Your task to perform on an android device: Open sound settings Image 0: 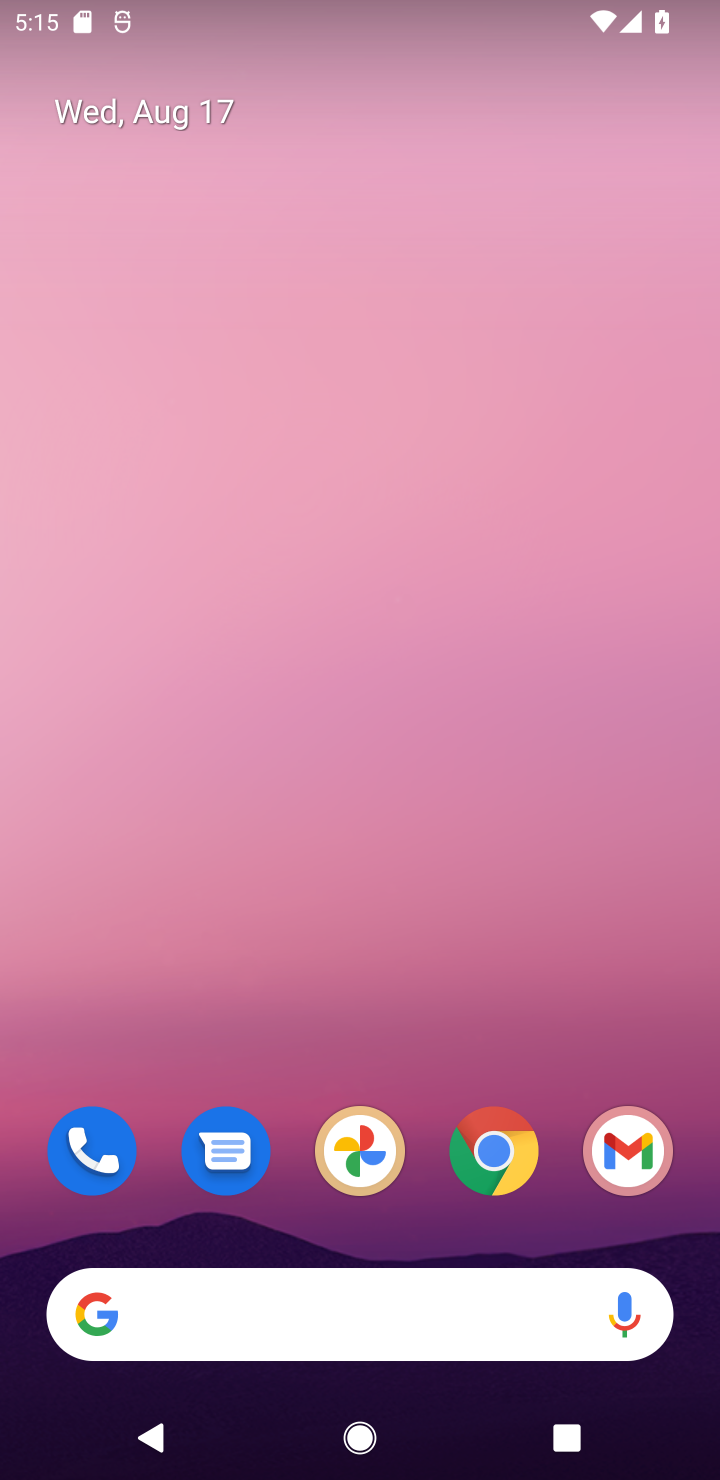
Step 0: drag from (410, 1080) to (428, 16)
Your task to perform on an android device: Open sound settings Image 1: 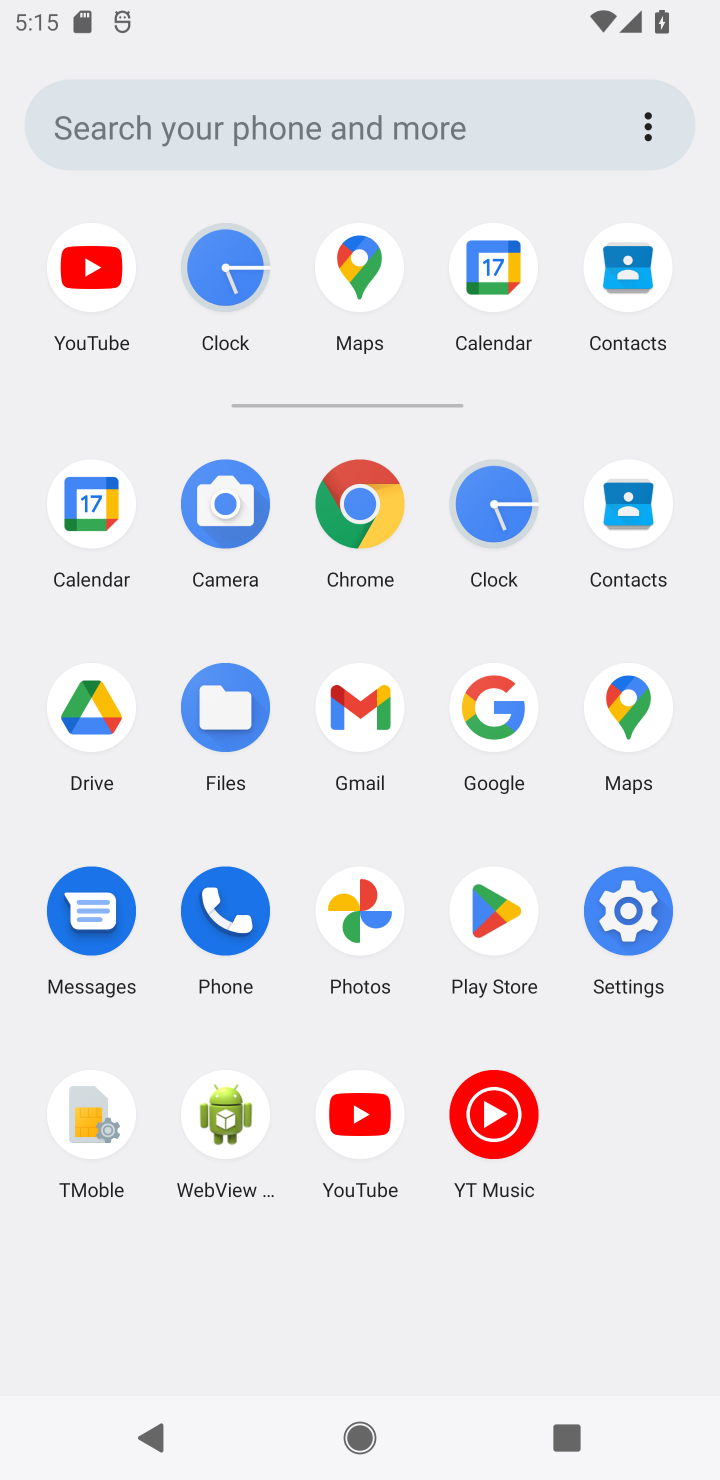
Step 1: click (619, 980)
Your task to perform on an android device: Open sound settings Image 2: 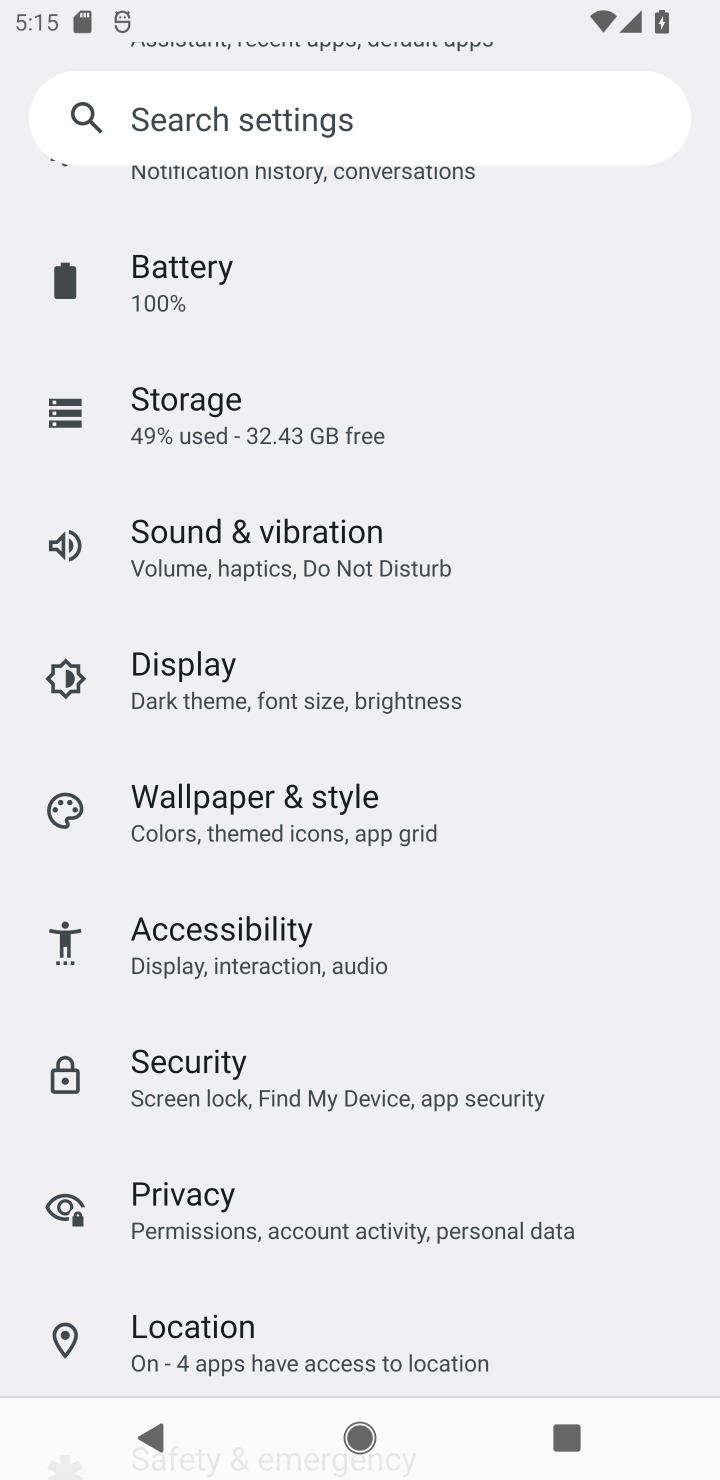
Step 2: click (206, 594)
Your task to perform on an android device: Open sound settings Image 3: 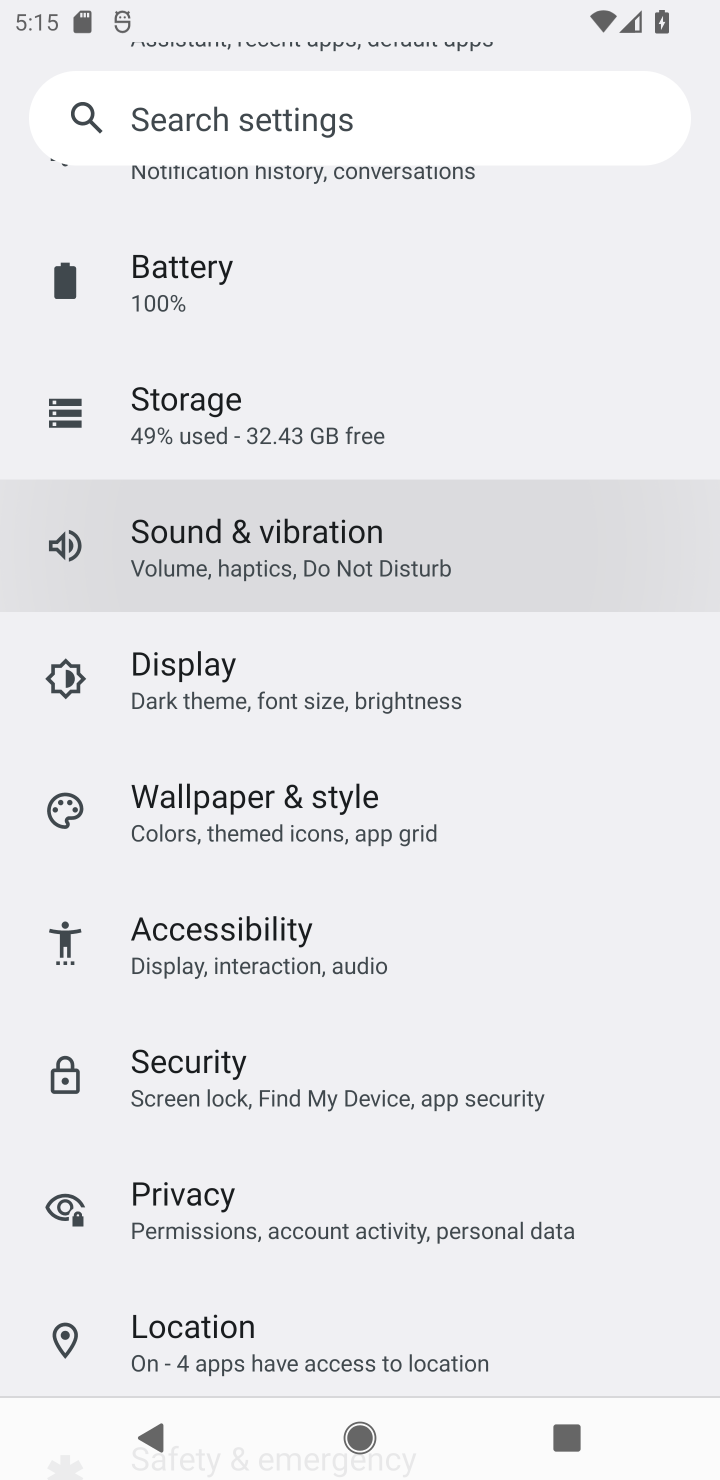
Step 3: task complete